Your task to perform on an android device: Toggle the flashlight Image 0: 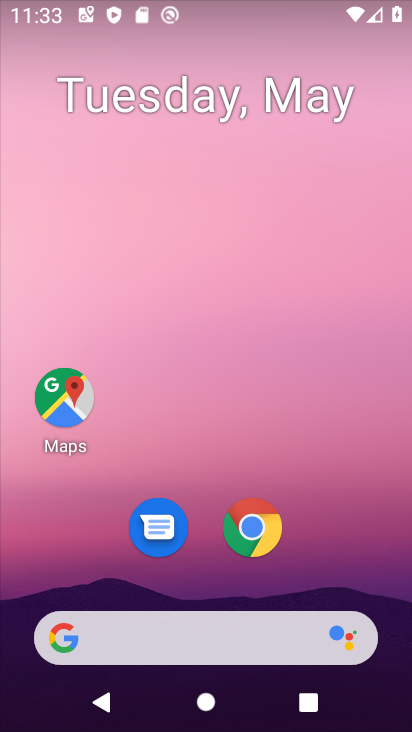
Step 0: drag from (313, 619) to (401, 354)
Your task to perform on an android device: Toggle the flashlight Image 1: 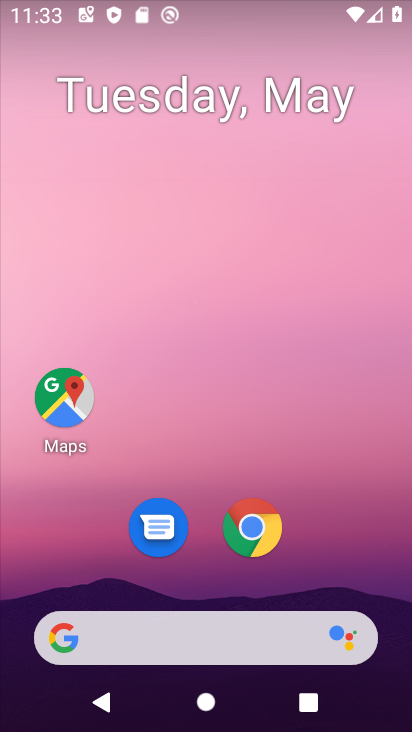
Step 1: click (259, 163)
Your task to perform on an android device: Toggle the flashlight Image 2: 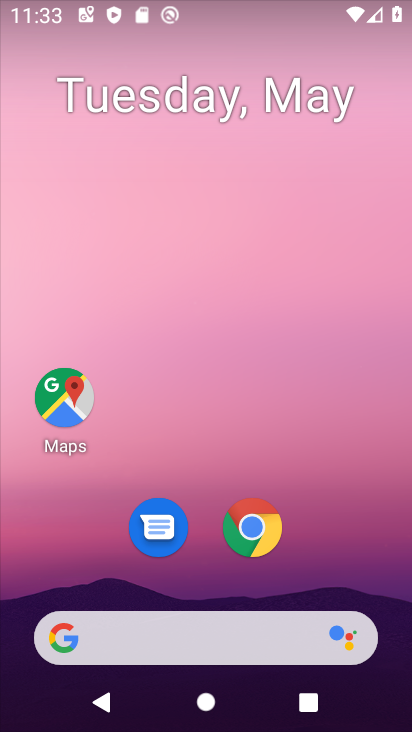
Step 2: click (323, 323)
Your task to perform on an android device: Toggle the flashlight Image 3: 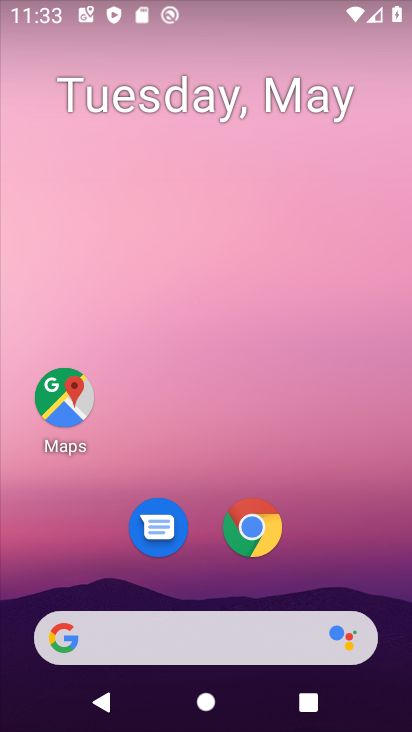
Step 3: task complete